Your task to perform on an android device: Show me recent news Image 0: 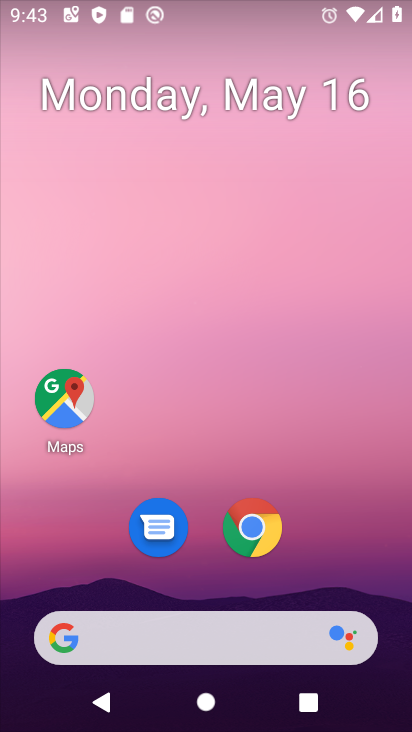
Step 0: click (109, 635)
Your task to perform on an android device: Show me recent news Image 1: 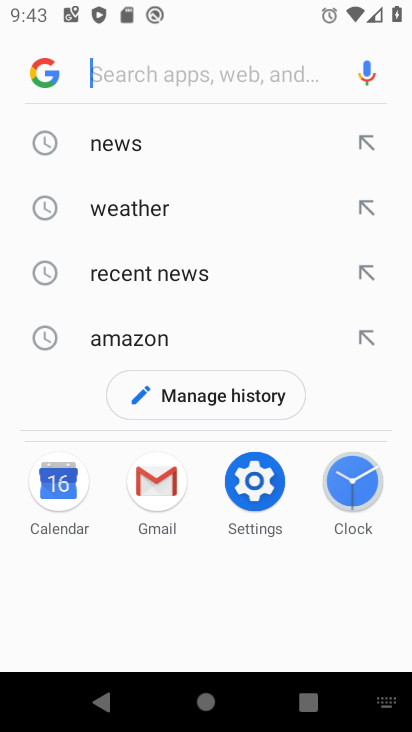
Step 1: click (151, 278)
Your task to perform on an android device: Show me recent news Image 2: 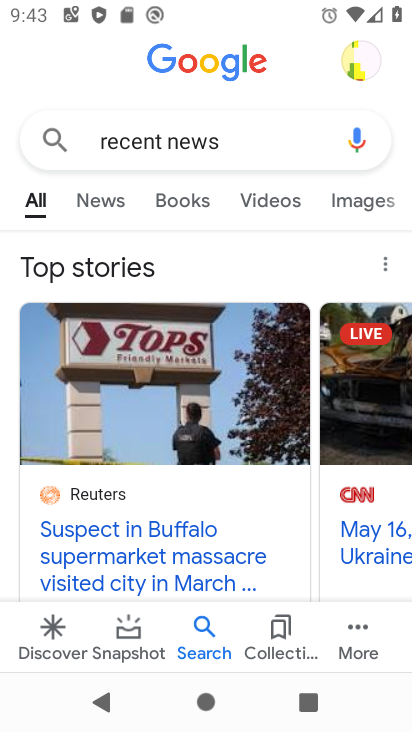
Step 2: click (92, 206)
Your task to perform on an android device: Show me recent news Image 3: 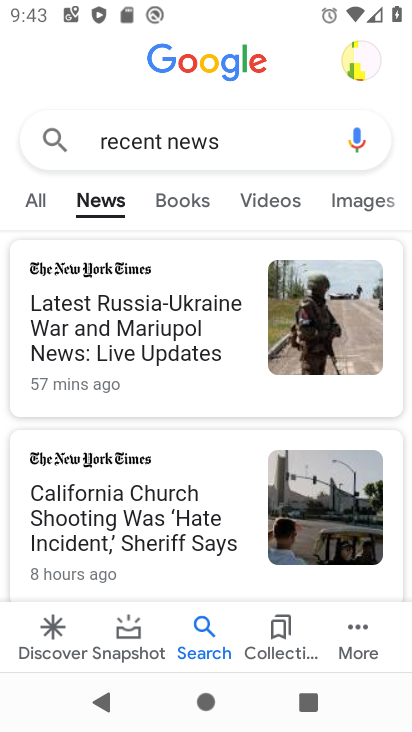
Step 3: click (113, 356)
Your task to perform on an android device: Show me recent news Image 4: 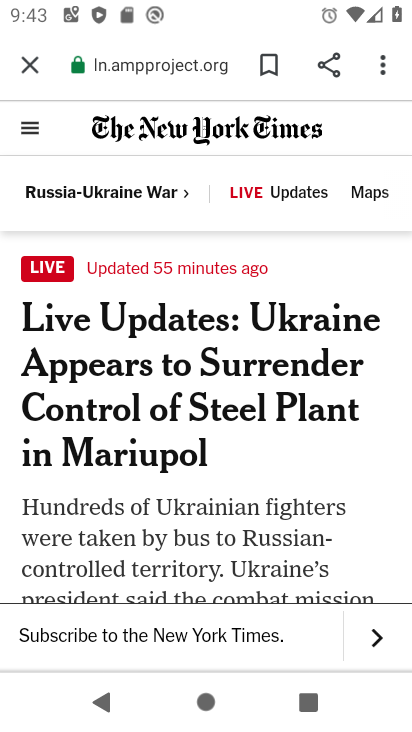
Step 4: task complete